Your task to perform on an android device: Do I have any events this weekend? Image 0: 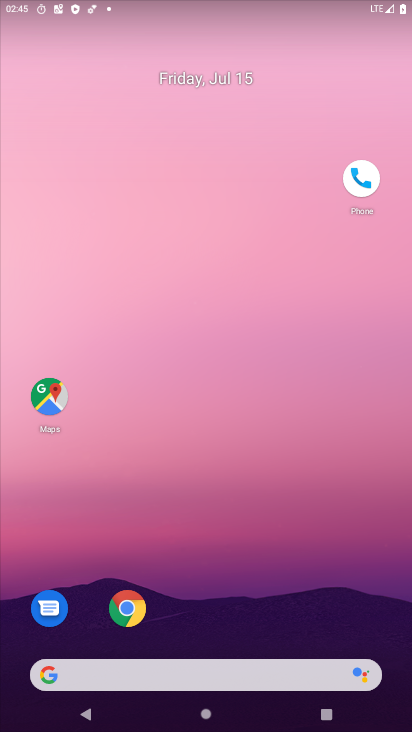
Step 0: drag from (210, 575) to (236, 340)
Your task to perform on an android device: Do I have any events this weekend? Image 1: 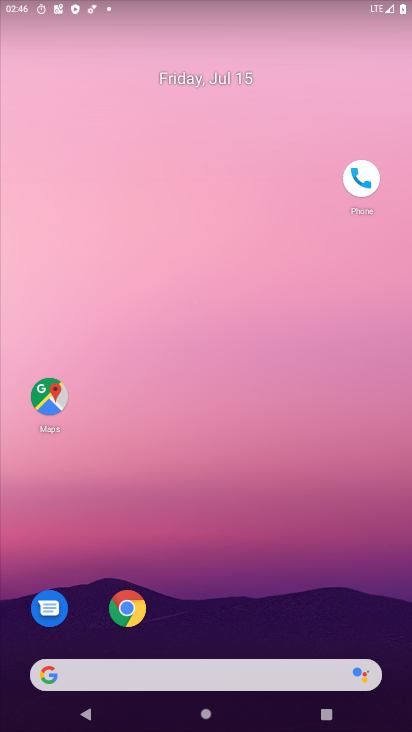
Step 1: drag from (209, 624) to (246, 197)
Your task to perform on an android device: Do I have any events this weekend? Image 2: 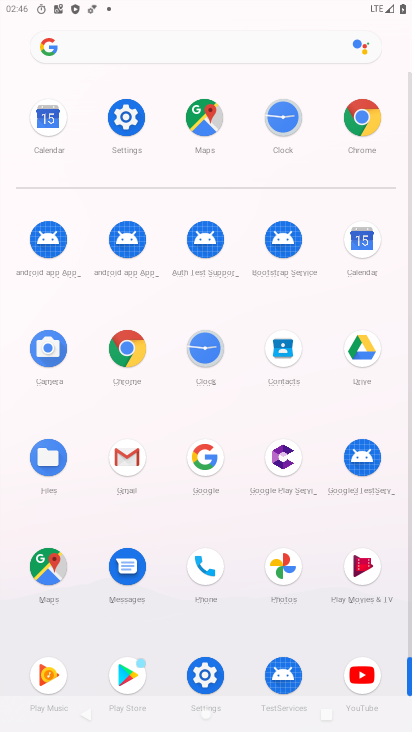
Step 2: click (357, 220)
Your task to perform on an android device: Do I have any events this weekend? Image 3: 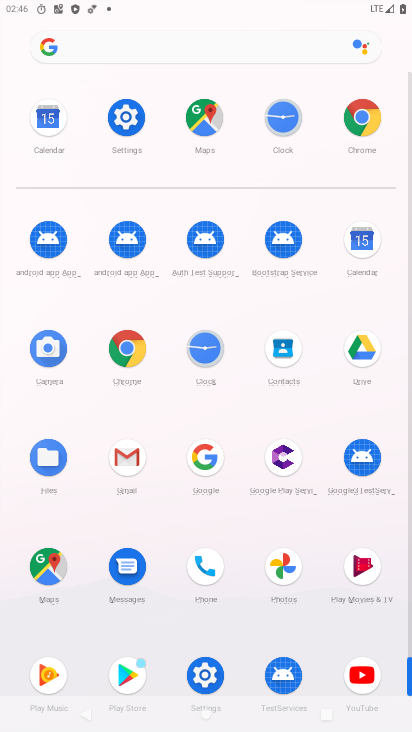
Step 3: click (357, 220)
Your task to perform on an android device: Do I have any events this weekend? Image 4: 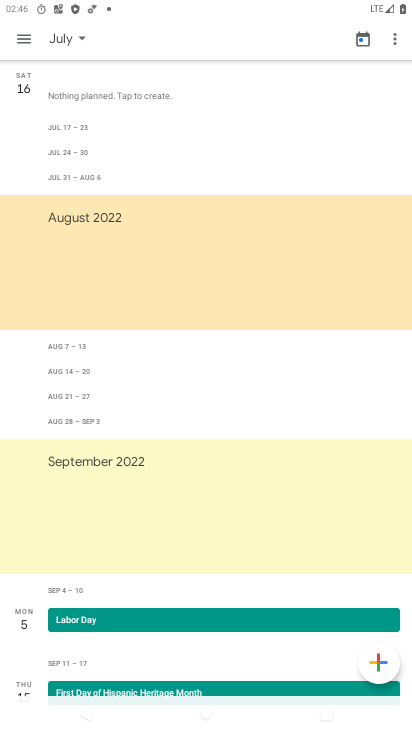
Step 4: click (48, 35)
Your task to perform on an android device: Do I have any events this weekend? Image 5: 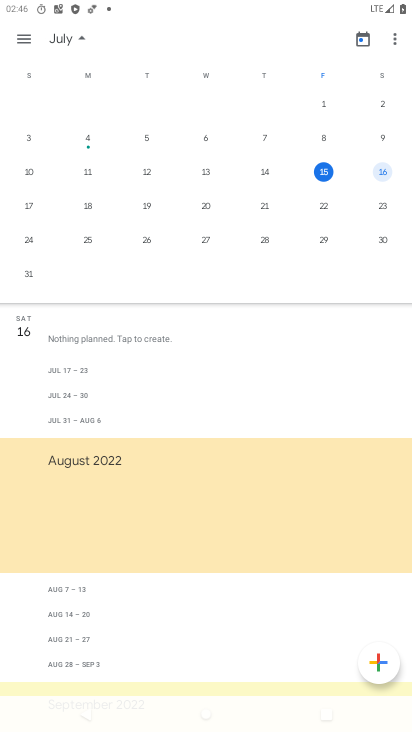
Step 5: click (378, 174)
Your task to perform on an android device: Do I have any events this weekend? Image 6: 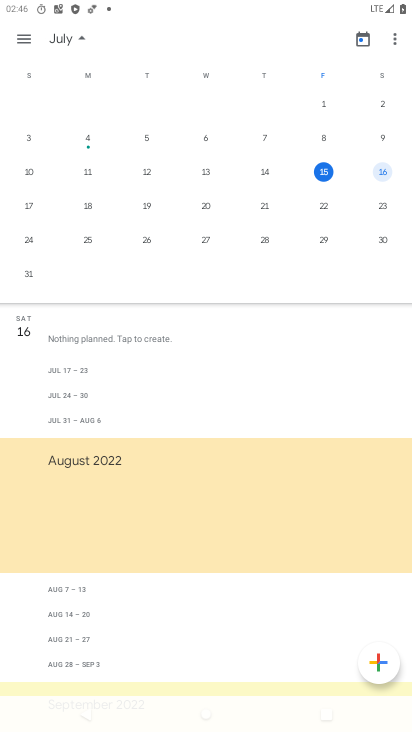
Step 6: drag from (265, 579) to (300, 380)
Your task to perform on an android device: Do I have any events this weekend? Image 7: 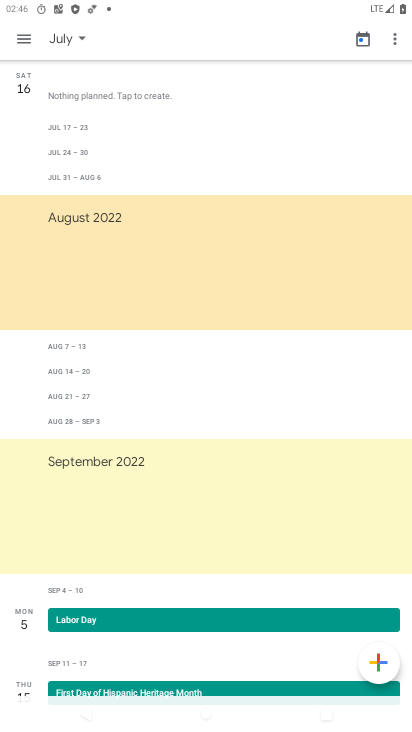
Step 7: click (68, 41)
Your task to perform on an android device: Do I have any events this weekend? Image 8: 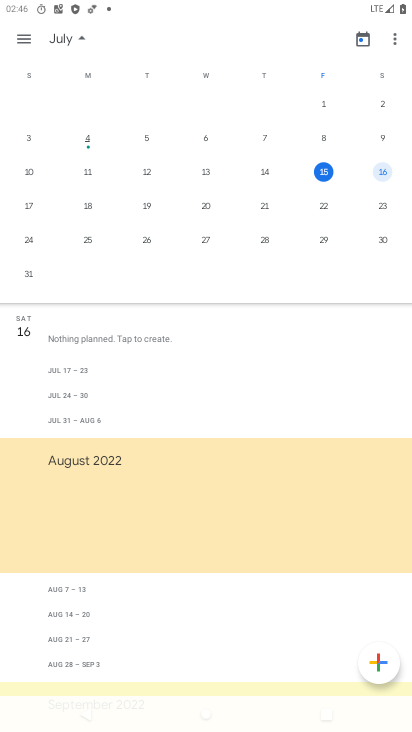
Step 8: click (384, 175)
Your task to perform on an android device: Do I have any events this weekend? Image 9: 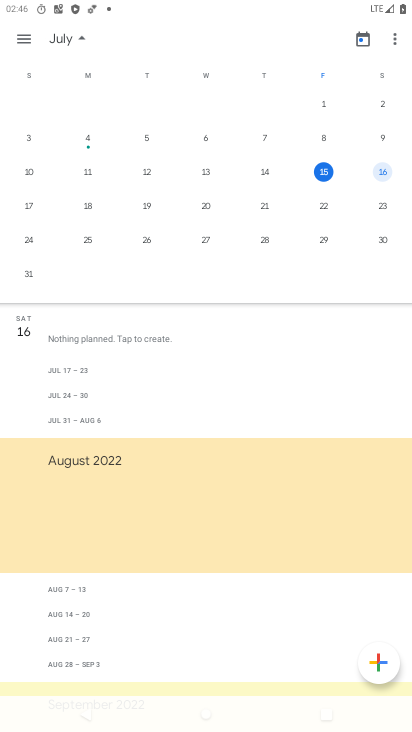
Step 9: task complete